Your task to perform on an android device: delete a single message in the gmail app Image 0: 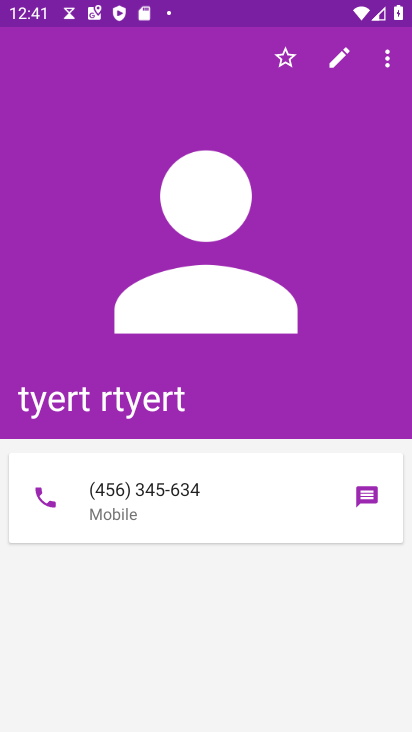
Step 0: press home button
Your task to perform on an android device: delete a single message in the gmail app Image 1: 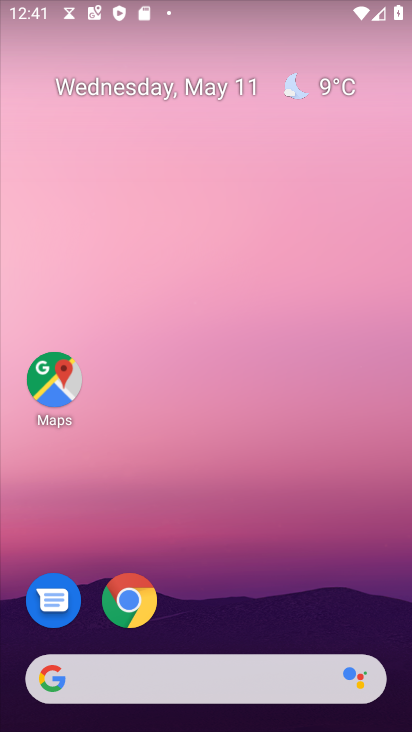
Step 1: drag from (280, 488) to (230, 106)
Your task to perform on an android device: delete a single message in the gmail app Image 2: 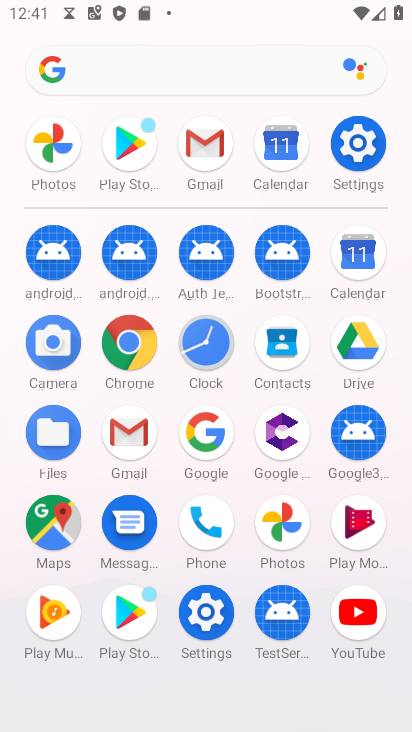
Step 2: click (203, 142)
Your task to perform on an android device: delete a single message in the gmail app Image 3: 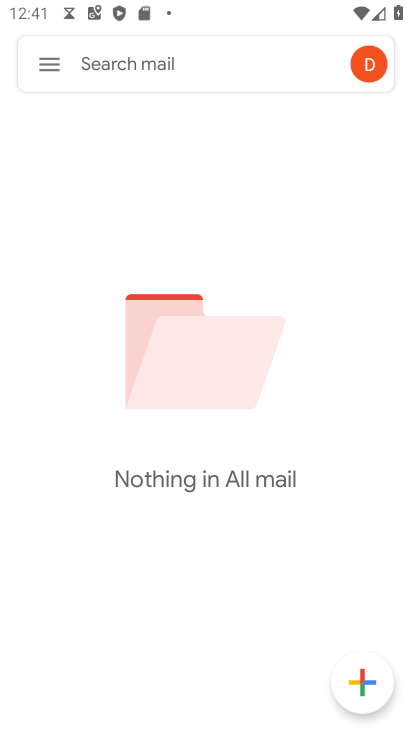
Step 3: click (50, 64)
Your task to perform on an android device: delete a single message in the gmail app Image 4: 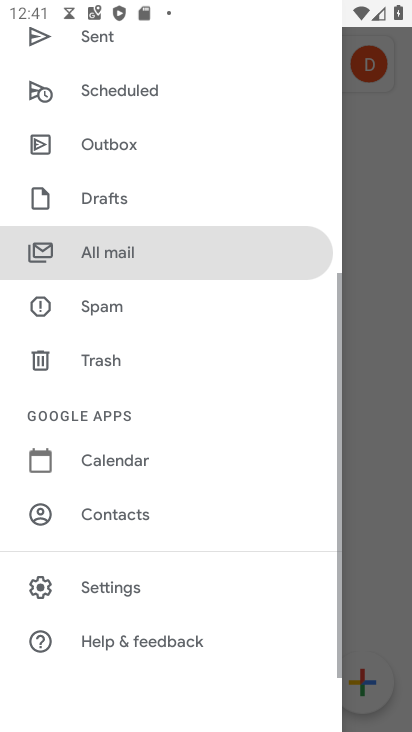
Step 4: click (178, 252)
Your task to perform on an android device: delete a single message in the gmail app Image 5: 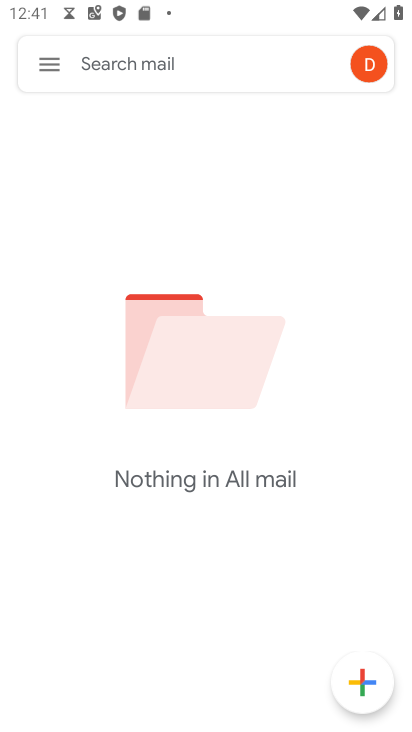
Step 5: task complete